Your task to perform on an android device: set the timer Image 0: 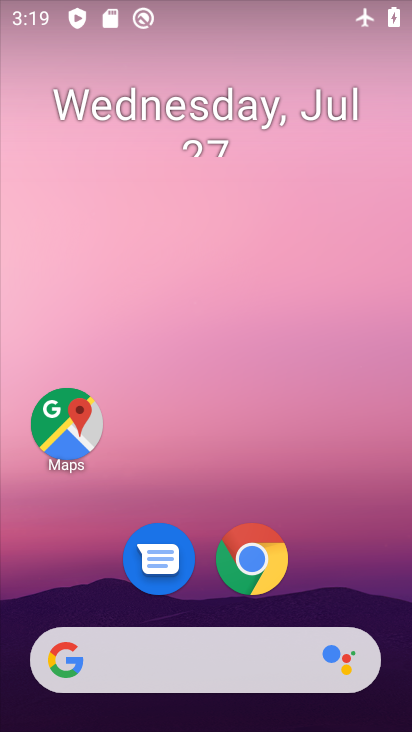
Step 0: drag from (100, 605) to (186, 29)
Your task to perform on an android device: set the timer Image 1: 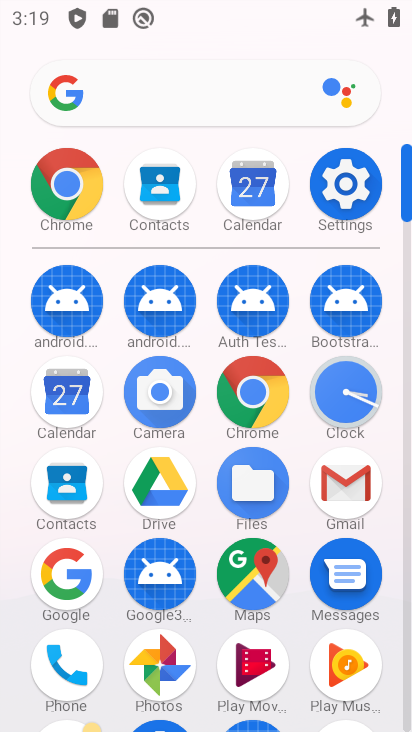
Step 1: click (333, 398)
Your task to perform on an android device: set the timer Image 2: 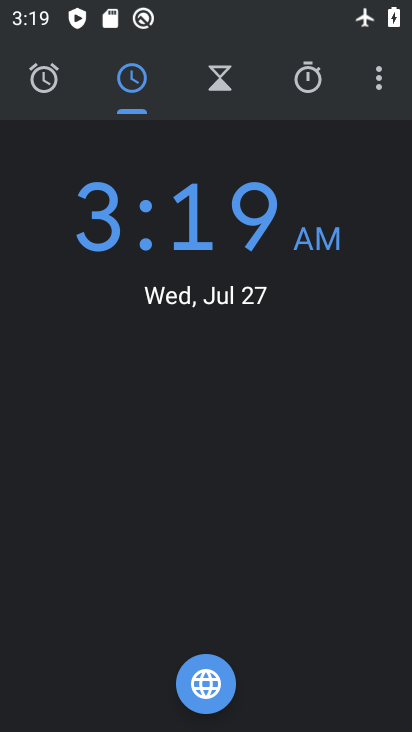
Step 2: click (234, 75)
Your task to perform on an android device: set the timer Image 3: 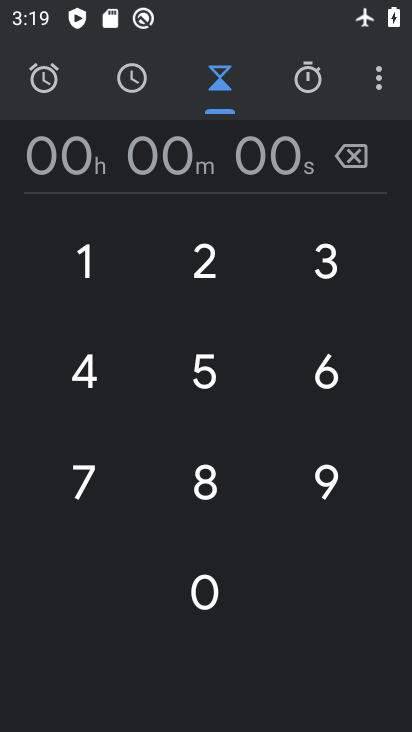
Step 3: click (216, 241)
Your task to perform on an android device: set the timer Image 4: 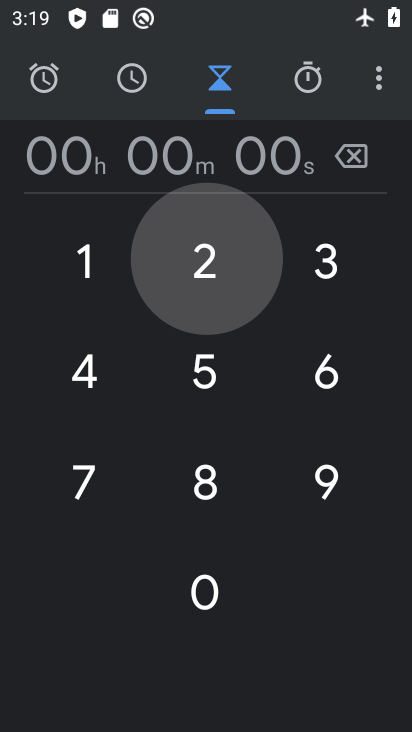
Step 4: click (344, 252)
Your task to perform on an android device: set the timer Image 5: 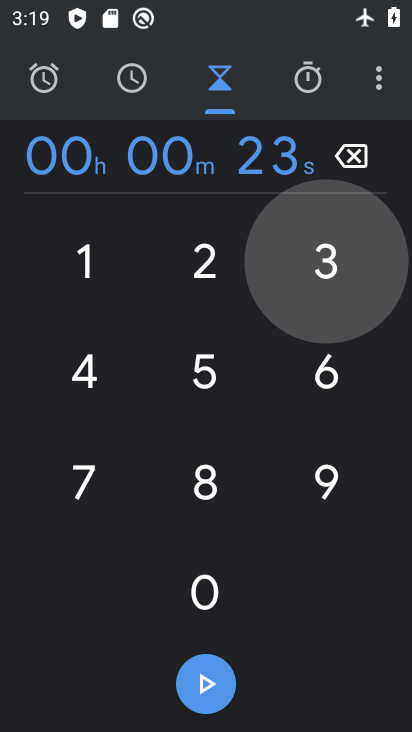
Step 5: click (189, 372)
Your task to perform on an android device: set the timer Image 6: 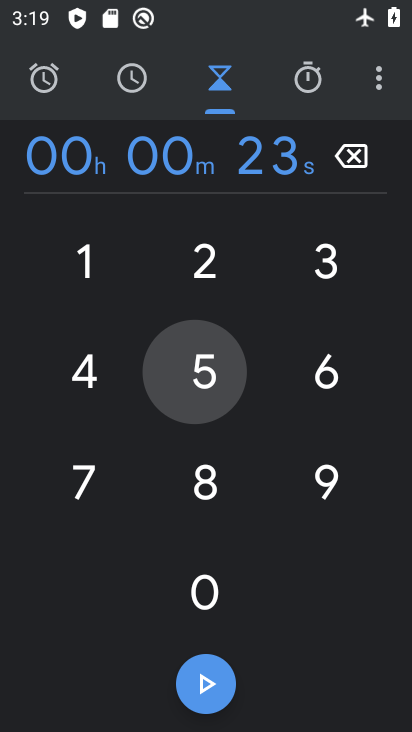
Step 6: click (298, 361)
Your task to perform on an android device: set the timer Image 7: 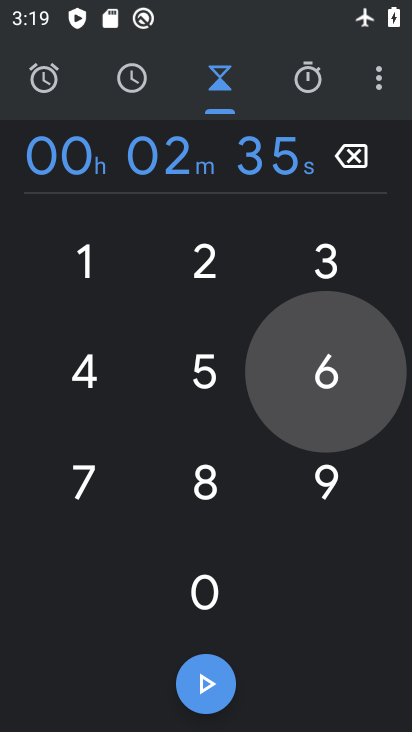
Step 7: click (192, 489)
Your task to perform on an android device: set the timer Image 8: 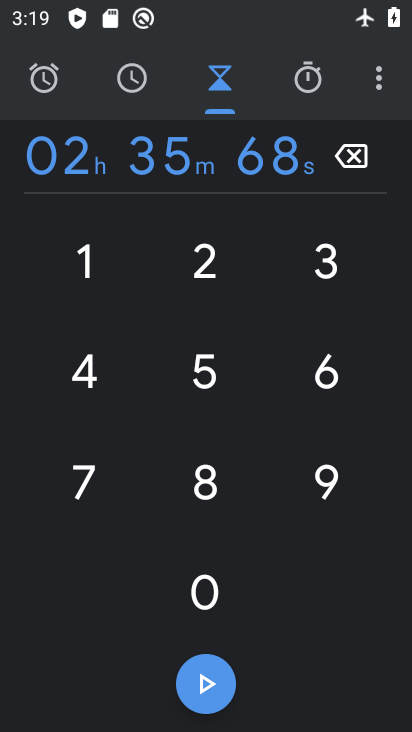
Step 8: click (197, 681)
Your task to perform on an android device: set the timer Image 9: 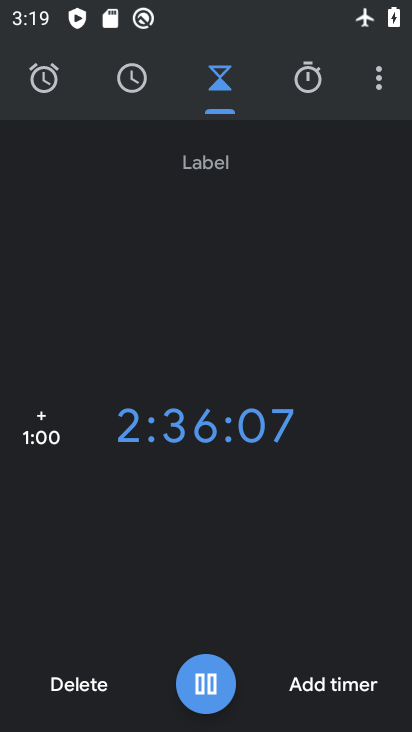
Step 9: task complete